Your task to perform on an android device: Go to Wikipedia Image 0: 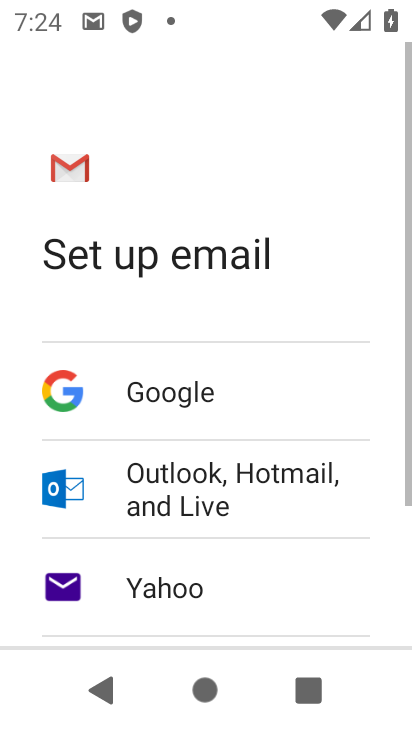
Step 0: press home button
Your task to perform on an android device: Go to Wikipedia Image 1: 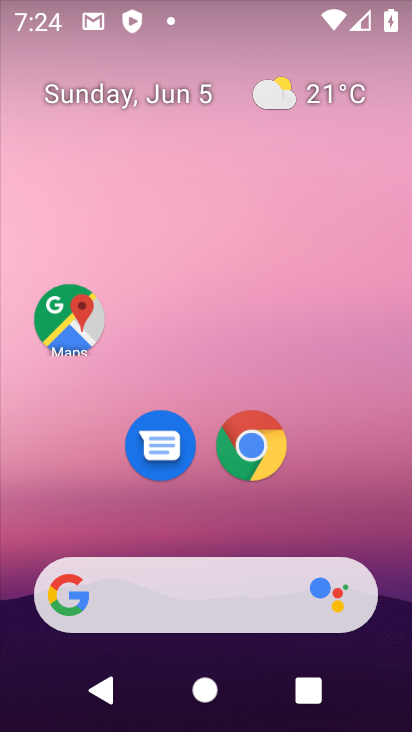
Step 1: click (252, 599)
Your task to perform on an android device: Go to Wikipedia Image 2: 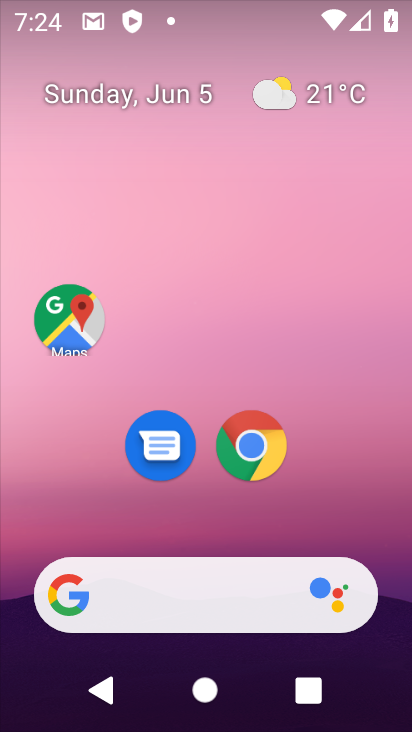
Step 2: click (222, 599)
Your task to perform on an android device: Go to Wikipedia Image 3: 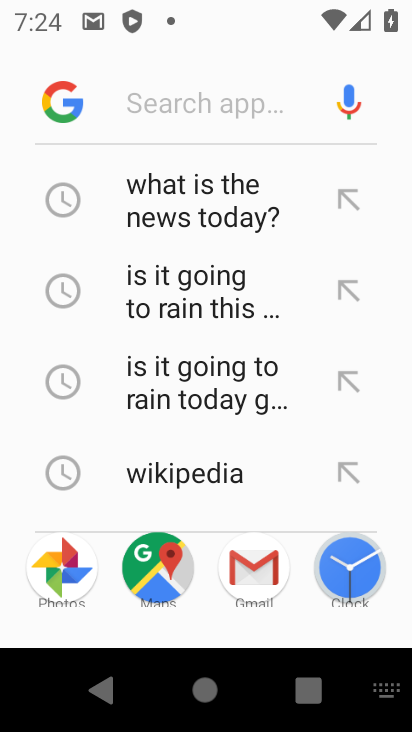
Step 3: click (209, 472)
Your task to perform on an android device: Go to Wikipedia Image 4: 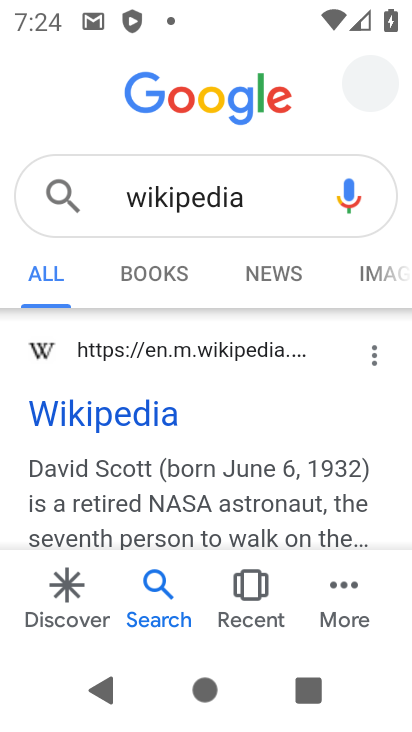
Step 4: click (92, 408)
Your task to perform on an android device: Go to Wikipedia Image 5: 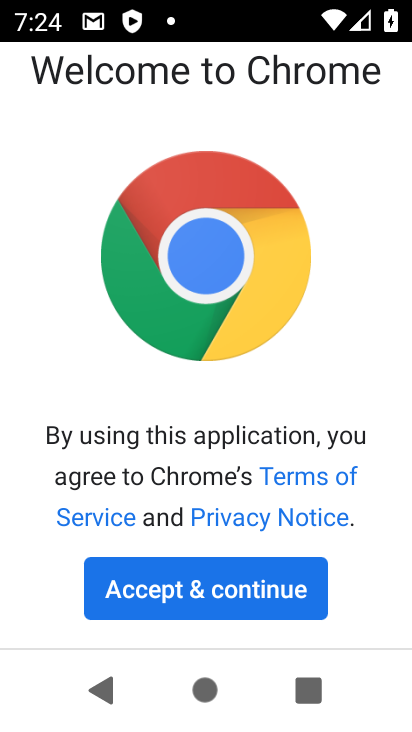
Step 5: click (281, 588)
Your task to perform on an android device: Go to Wikipedia Image 6: 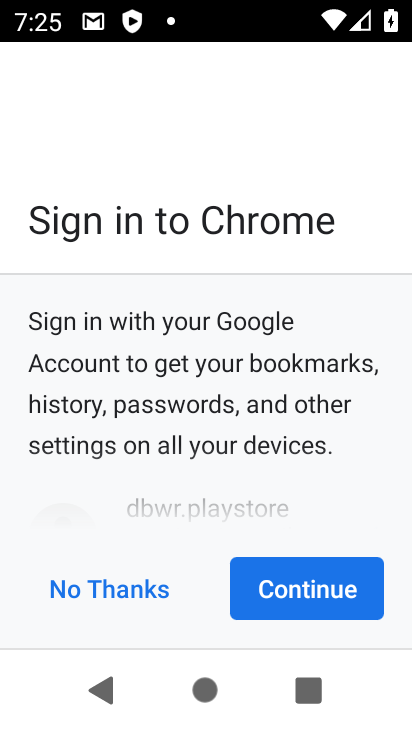
Step 6: click (326, 586)
Your task to perform on an android device: Go to Wikipedia Image 7: 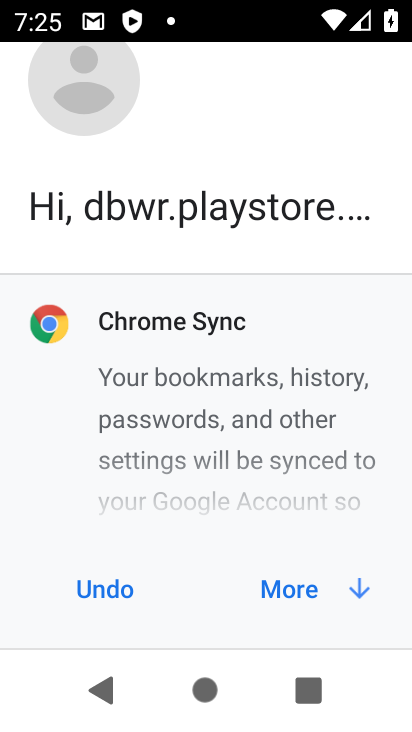
Step 7: click (354, 590)
Your task to perform on an android device: Go to Wikipedia Image 8: 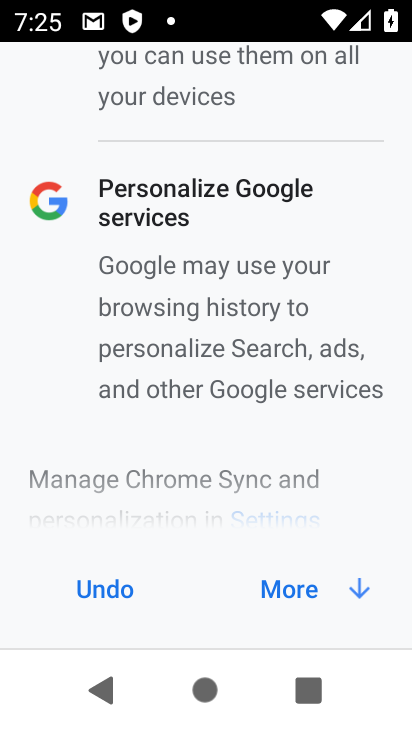
Step 8: click (360, 587)
Your task to perform on an android device: Go to Wikipedia Image 9: 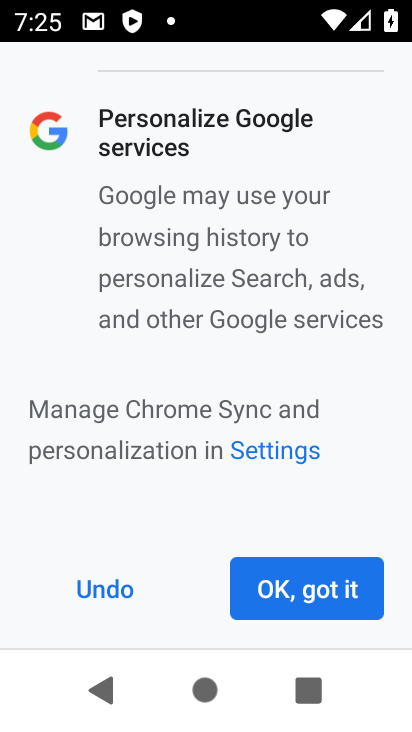
Step 9: click (320, 579)
Your task to perform on an android device: Go to Wikipedia Image 10: 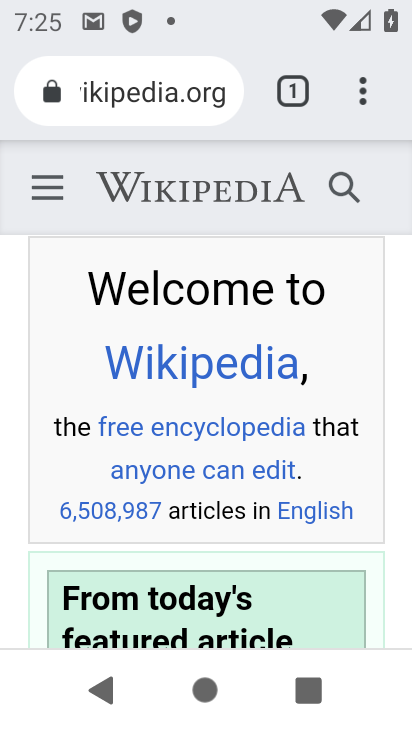
Step 10: task complete